Your task to perform on an android device: Go to network settings Image 0: 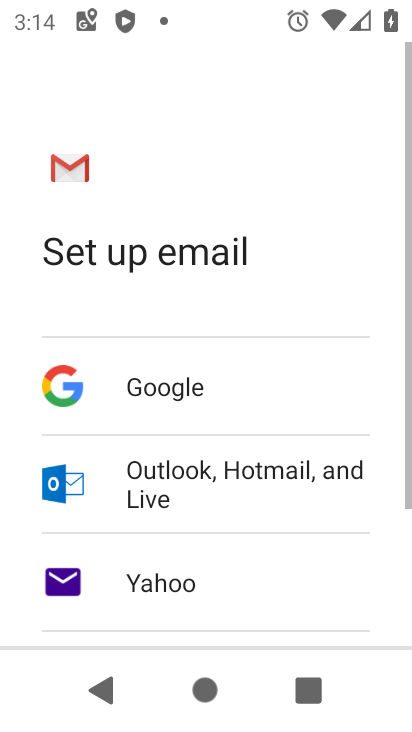
Step 0: press home button
Your task to perform on an android device: Go to network settings Image 1: 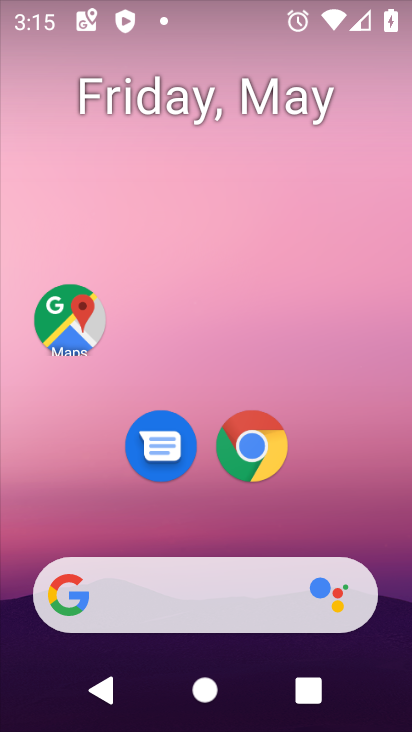
Step 1: drag from (395, 584) to (317, 157)
Your task to perform on an android device: Go to network settings Image 2: 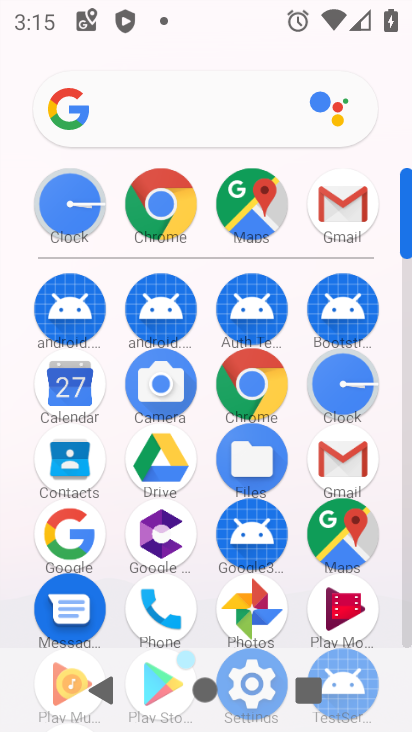
Step 2: click (406, 638)
Your task to perform on an android device: Go to network settings Image 3: 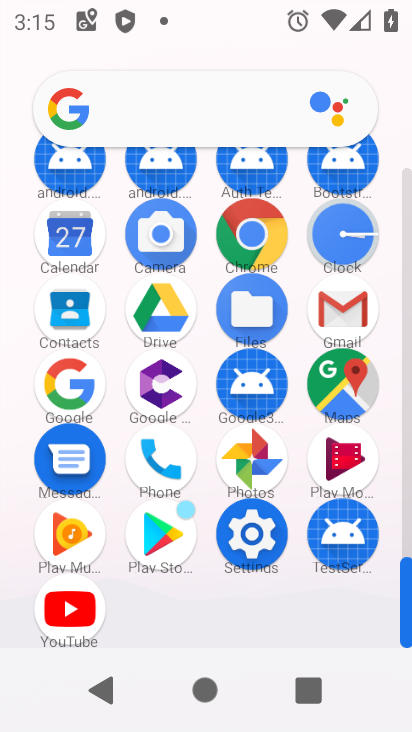
Step 3: click (263, 528)
Your task to perform on an android device: Go to network settings Image 4: 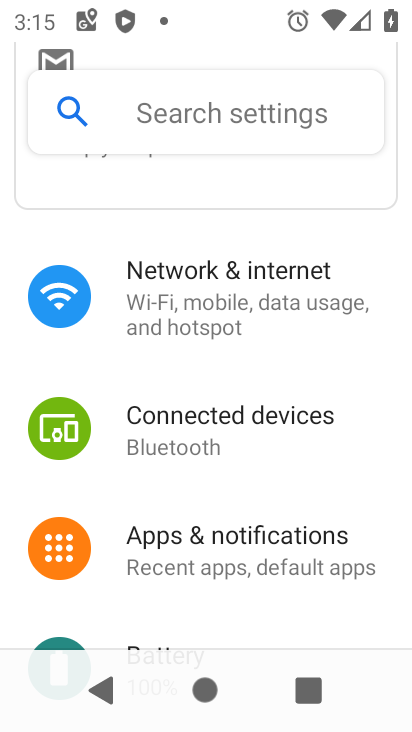
Step 4: click (277, 318)
Your task to perform on an android device: Go to network settings Image 5: 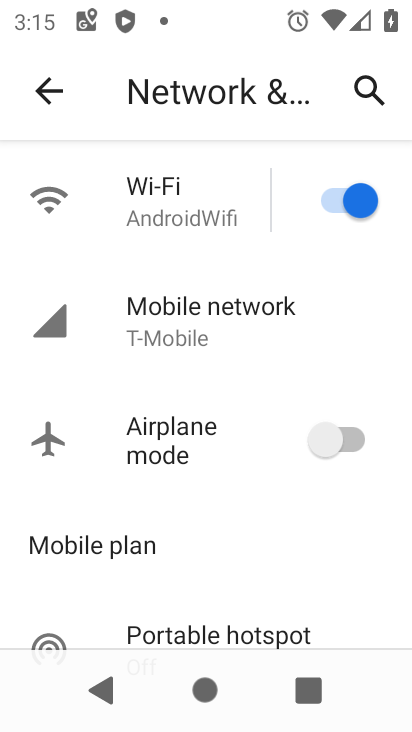
Step 5: task complete